Your task to perform on an android device: Search for "usb-c to usb-a" on target, select the first entry, add it to the cart, then select checkout. Image 0: 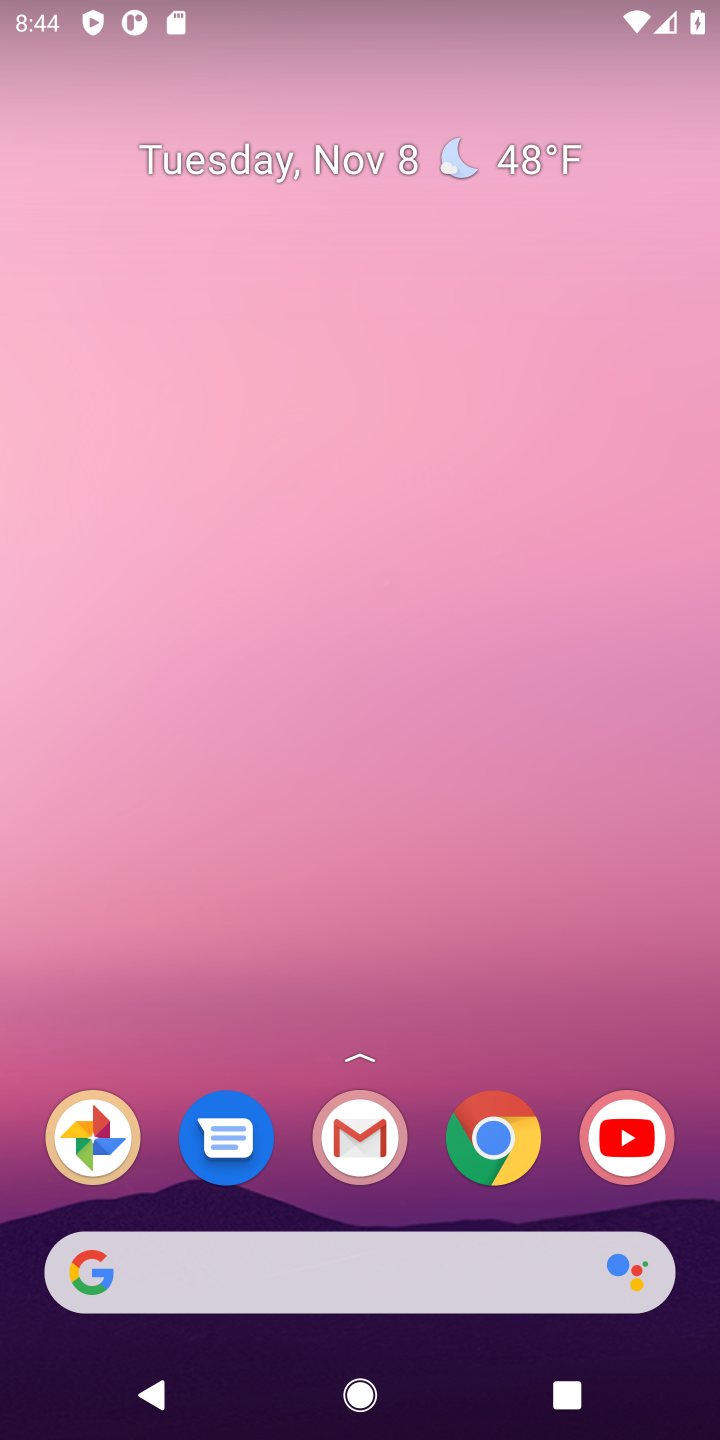
Step 0: click (492, 1152)
Your task to perform on an android device: Search for "usb-c to usb-a" on target, select the first entry, add it to the cart, then select checkout. Image 1: 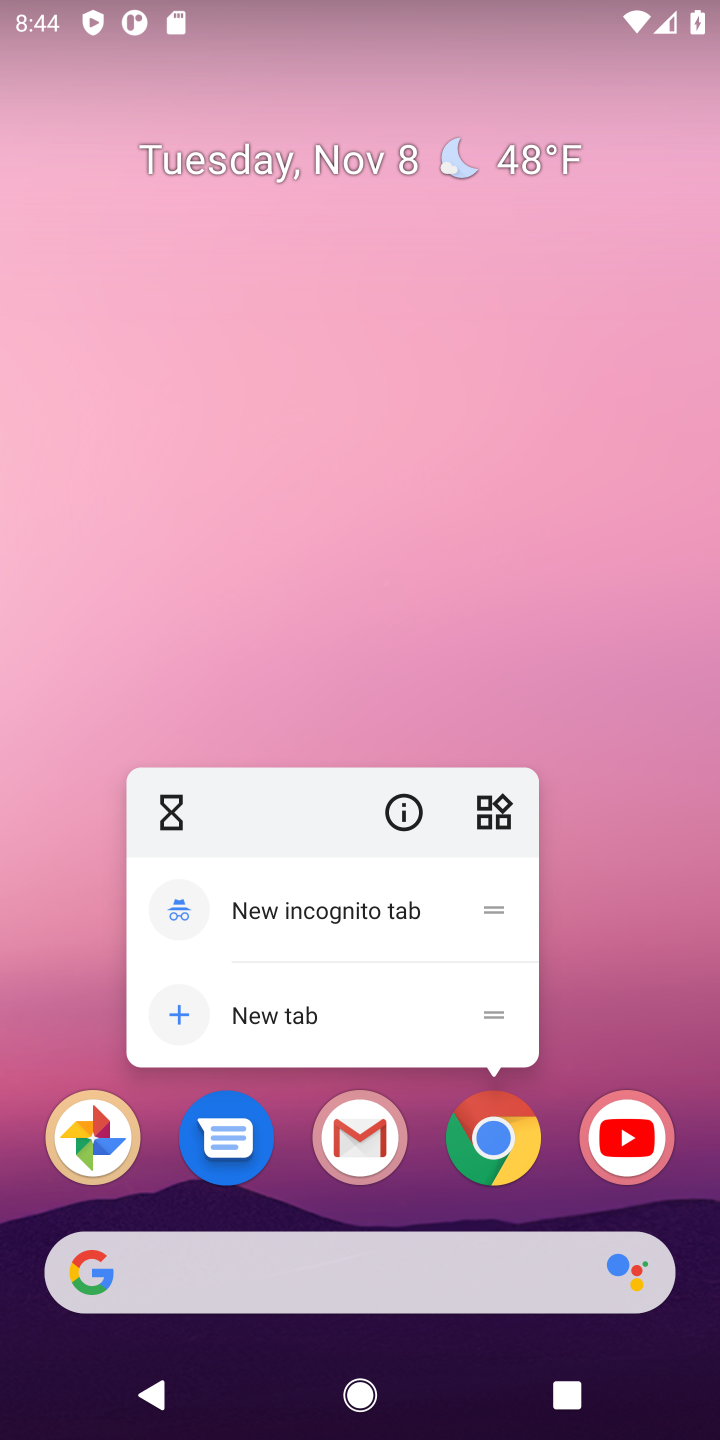
Step 1: click (497, 1138)
Your task to perform on an android device: Search for "usb-c to usb-a" on target, select the first entry, add it to the cart, then select checkout. Image 2: 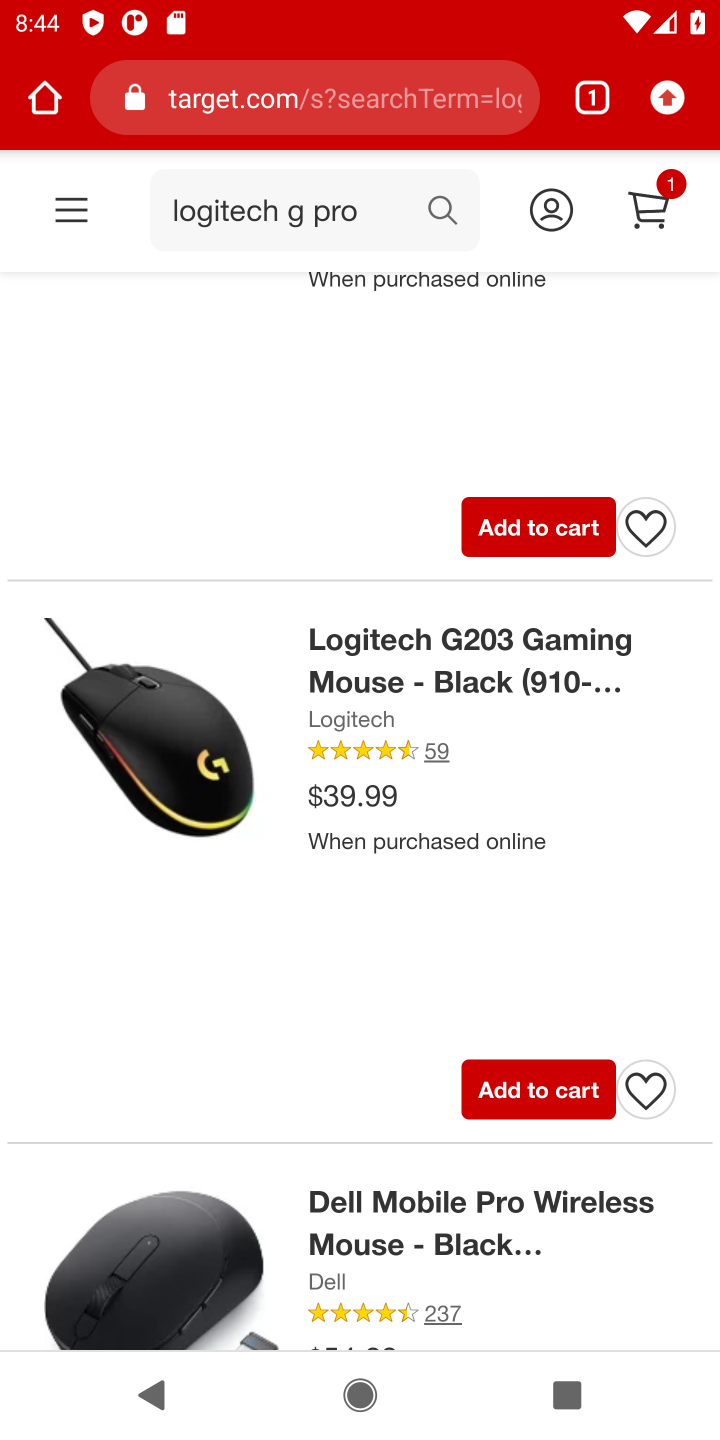
Step 2: click (432, 204)
Your task to perform on an android device: Search for "usb-c to usb-a" on target, select the first entry, add it to the cart, then select checkout. Image 3: 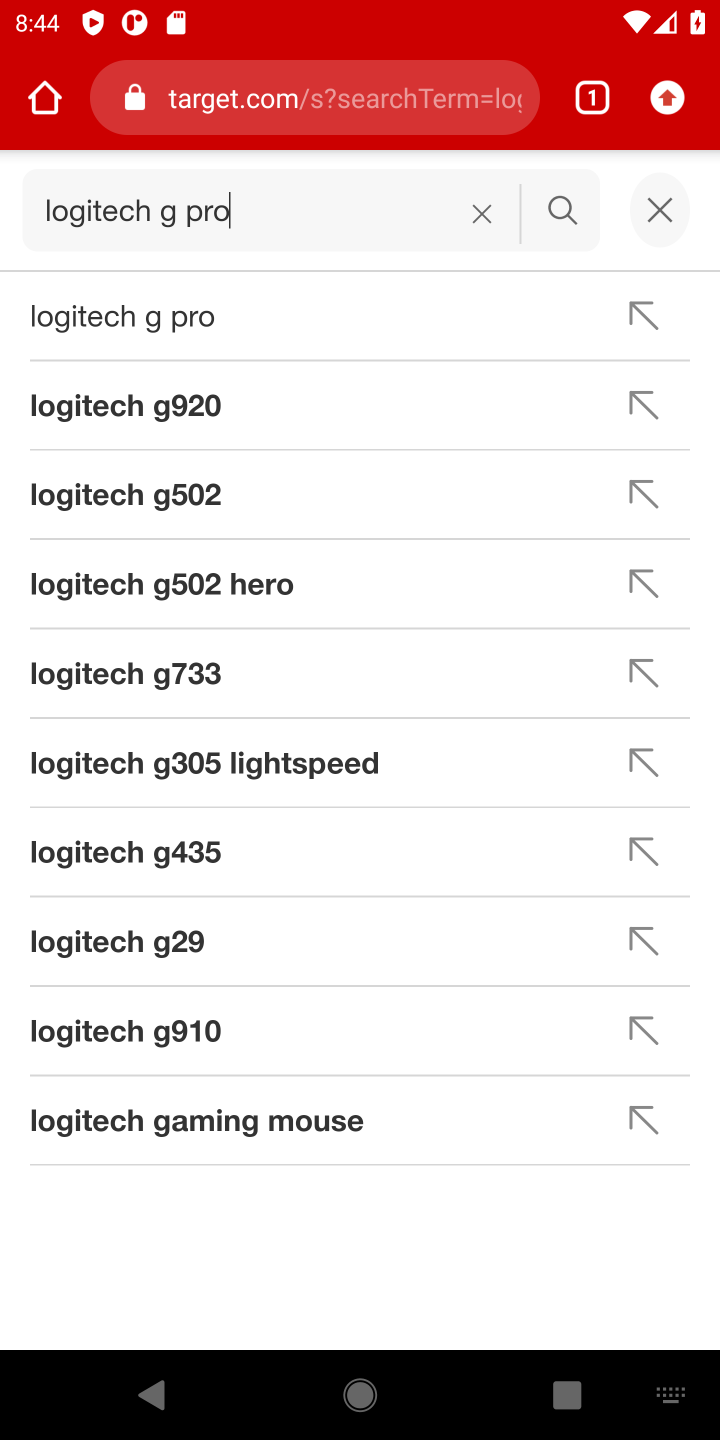
Step 3: click (465, 225)
Your task to perform on an android device: Search for "usb-c to usb-a" on target, select the first entry, add it to the cart, then select checkout. Image 4: 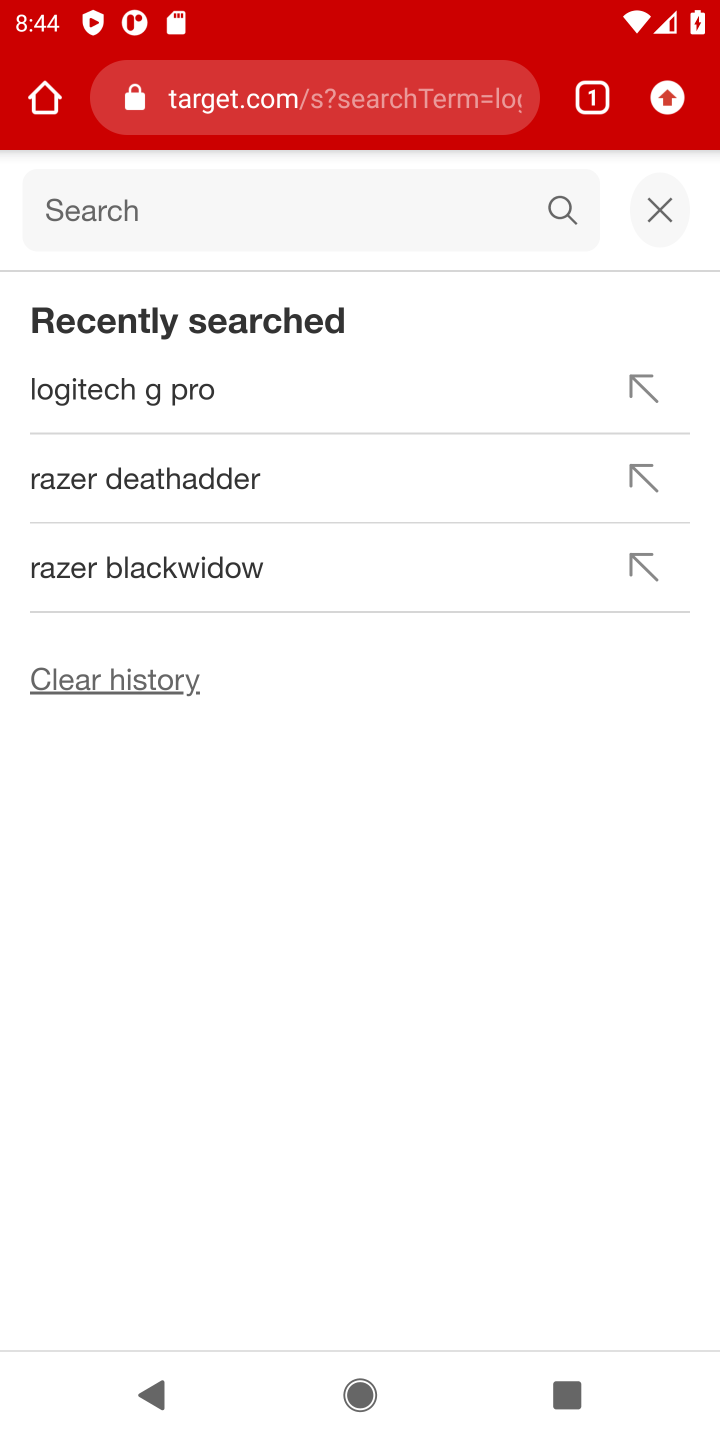
Step 4: click (465, 227)
Your task to perform on an android device: Search for "usb-c to usb-a" on target, select the first entry, add it to the cart, then select checkout. Image 5: 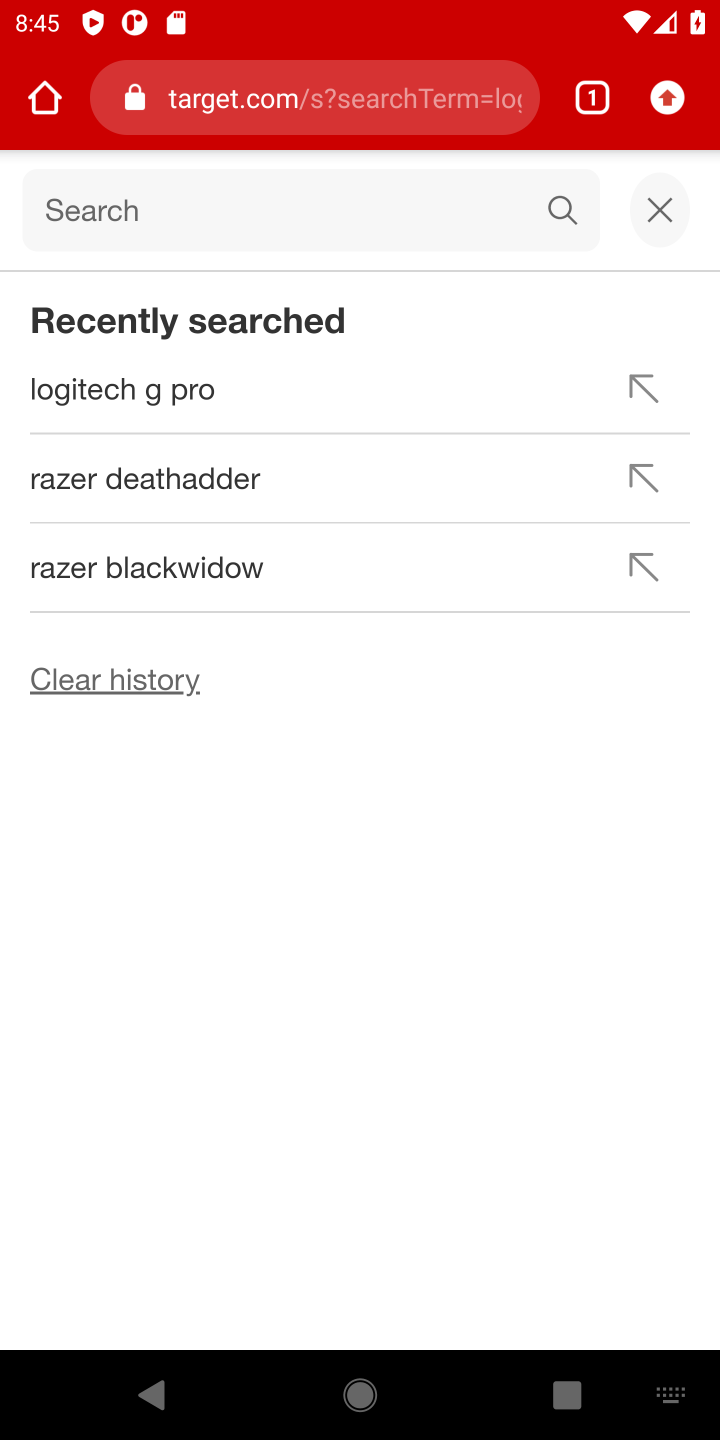
Step 5: type "usb-c to usb-a"
Your task to perform on an android device: Search for "usb-c to usb-a" on target, select the first entry, add it to the cart, then select checkout. Image 6: 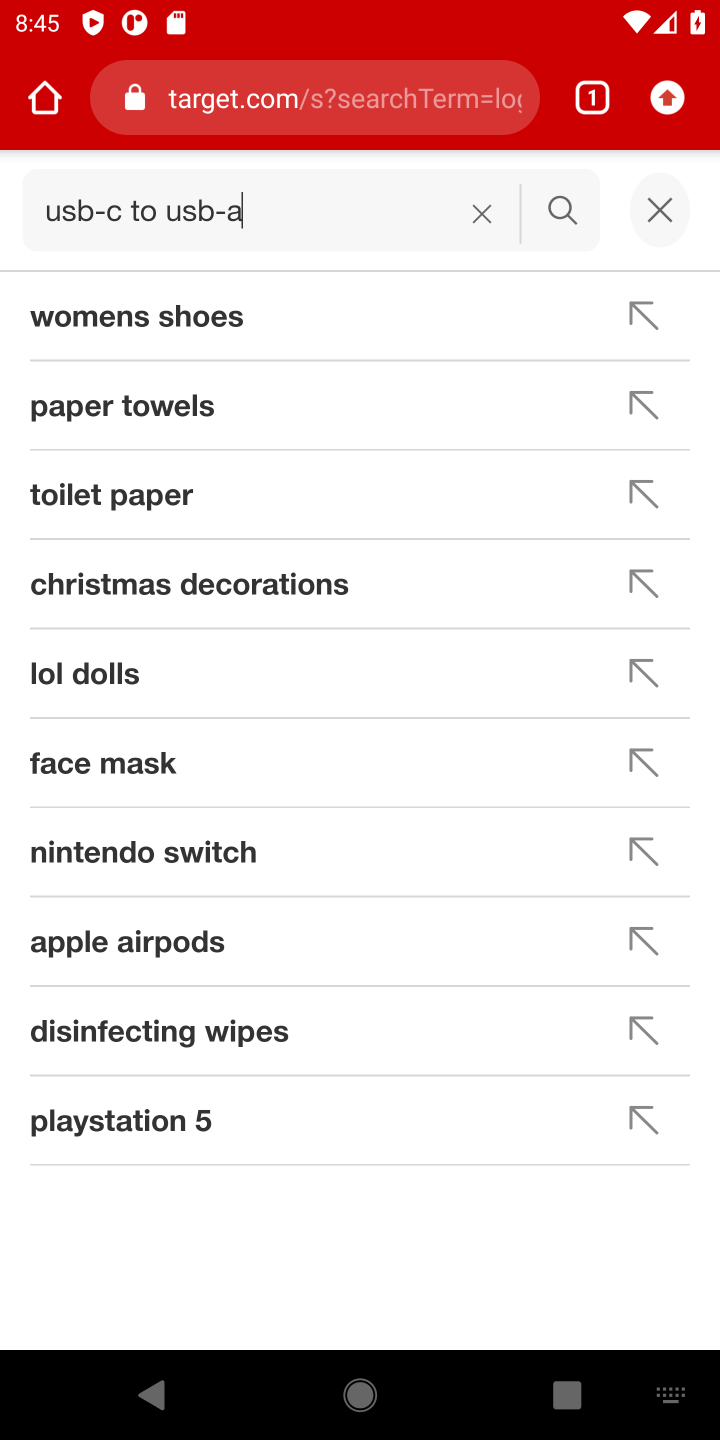
Step 6: press enter
Your task to perform on an android device: Search for "usb-c to usb-a" on target, select the first entry, add it to the cart, then select checkout. Image 7: 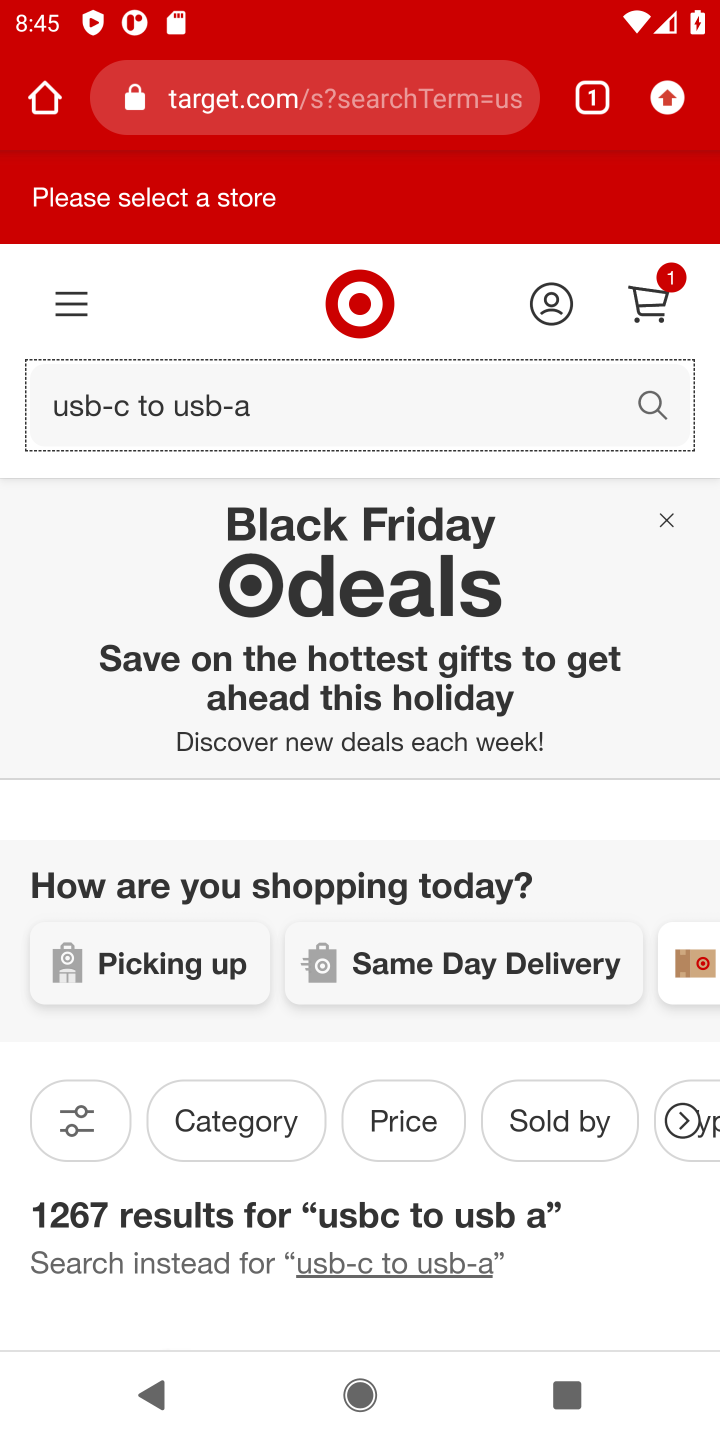
Step 7: drag from (352, 1161) to (514, 635)
Your task to perform on an android device: Search for "usb-c to usb-a" on target, select the first entry, add it to the cart, then select checkout. Image 8: 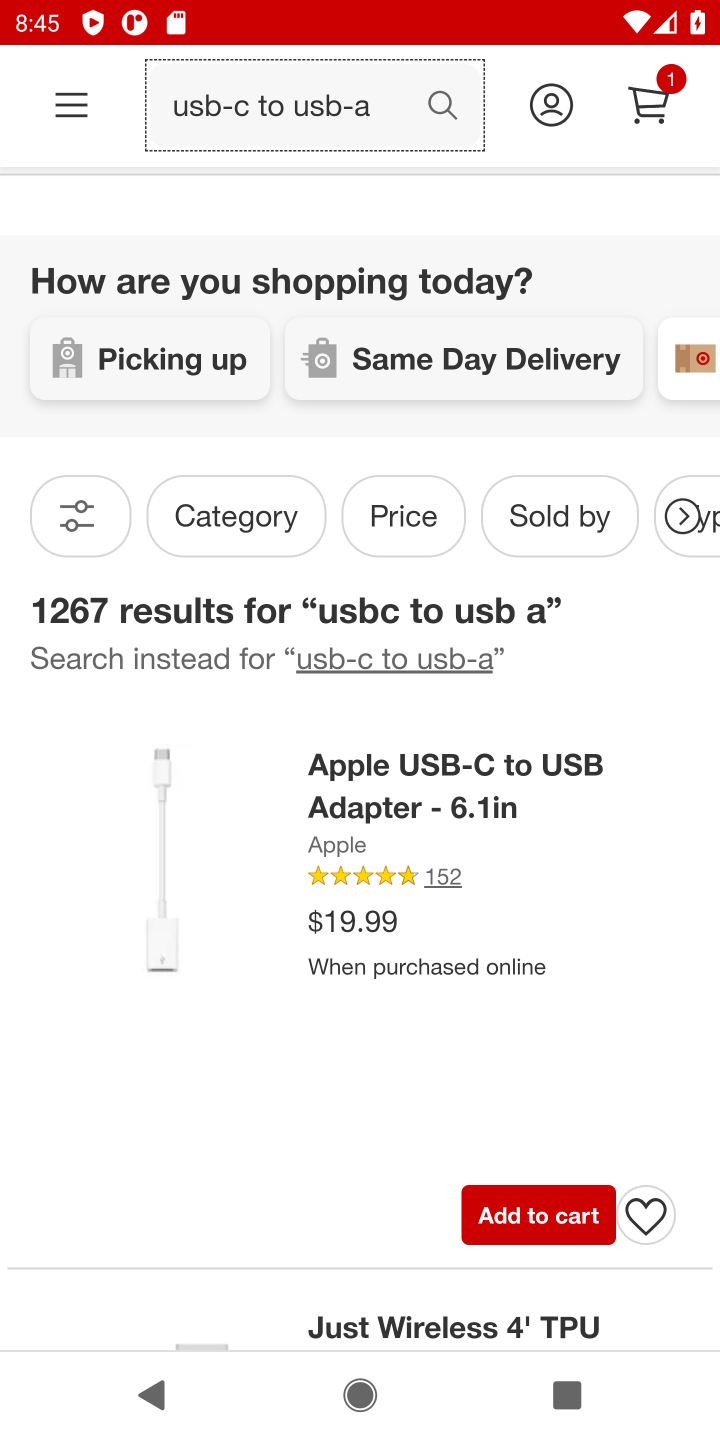
Step 8: click (541, 1219)
Your task to perform on an android device: Search for "usb-c to usb-a" on target, select the first entry, add it to the cart, then select checkout. Image 9: 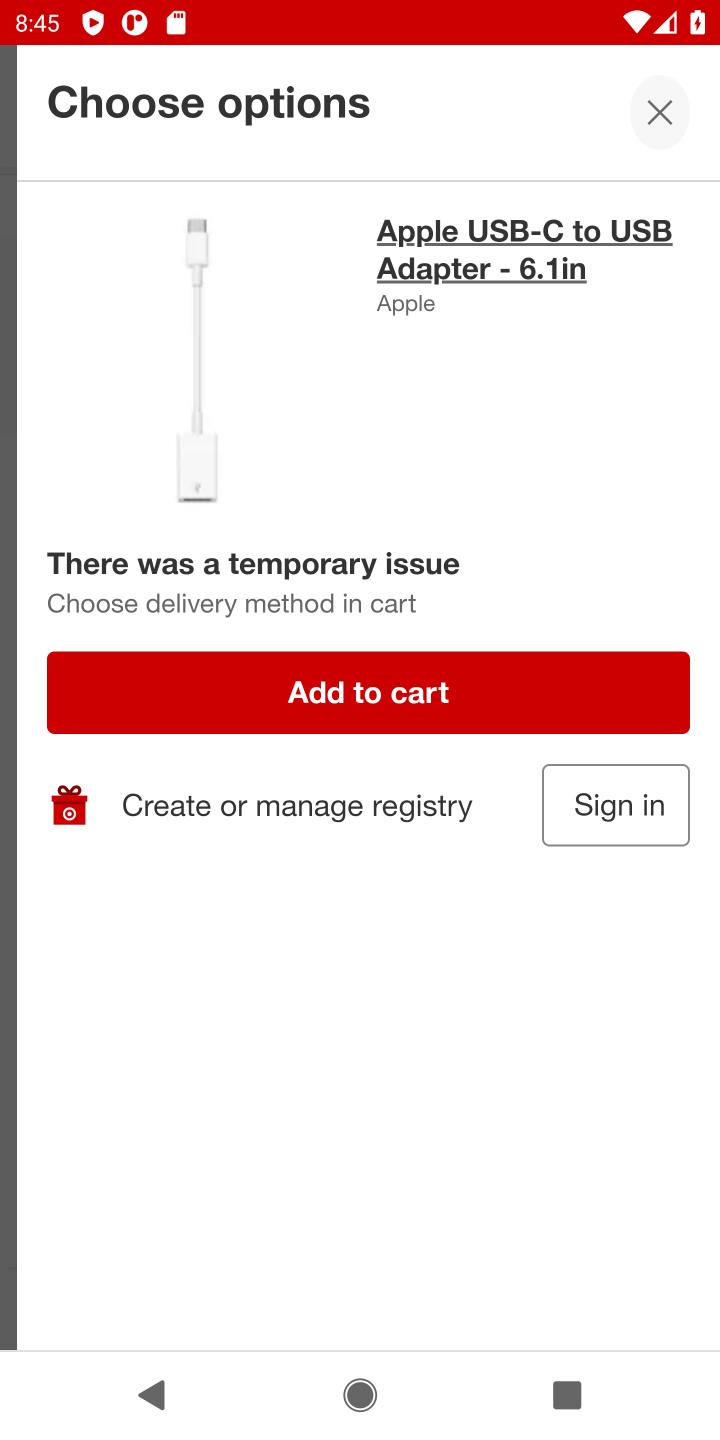
Step 9: click (443, 697)
Your task to perform on an android device: Search for "usb-c to usb-a" on target, select the first entry, add it to the cart, then select checkout. Image 10: 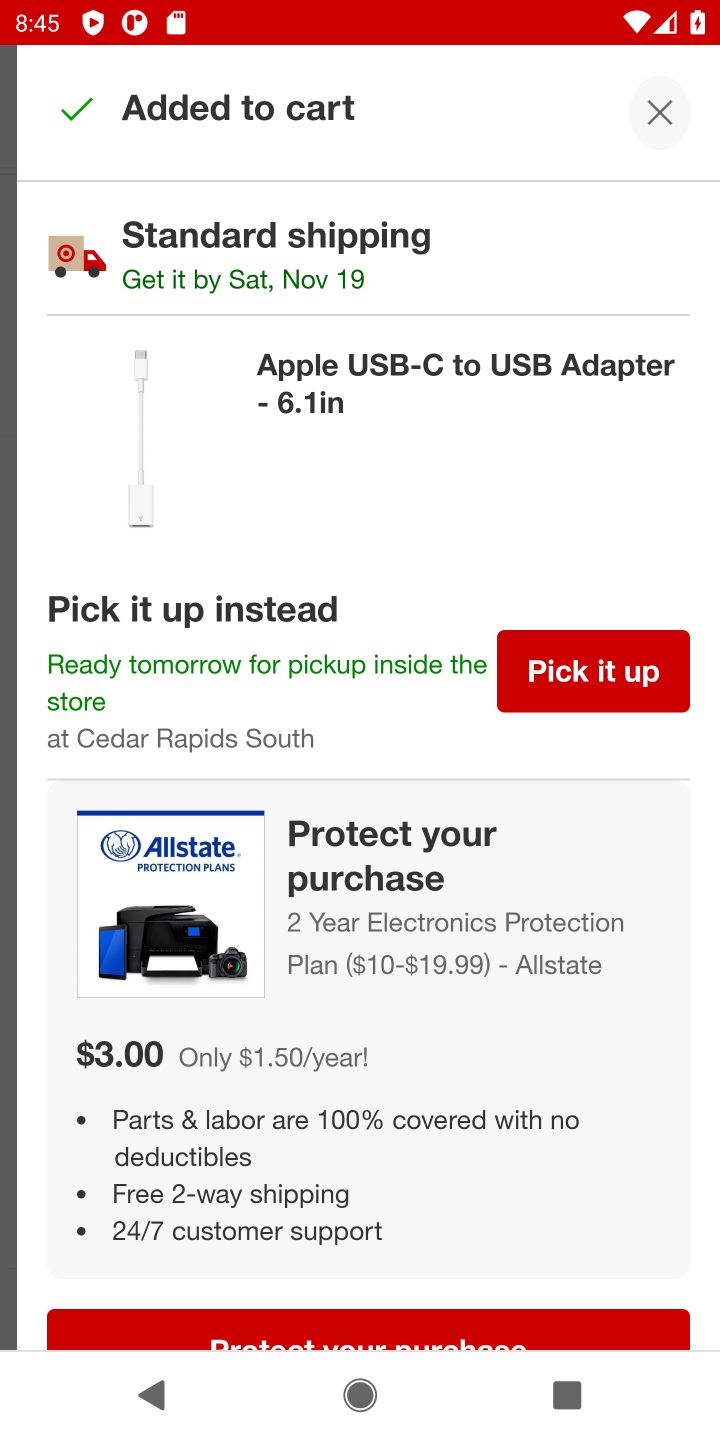
Step 10: drag from (418, 1125) to (541, 414)
Your task to perform on an android device: Search for "usb-c to usb-a" on target, select the first entry, add it to the cart, then select checkout. Image 11: 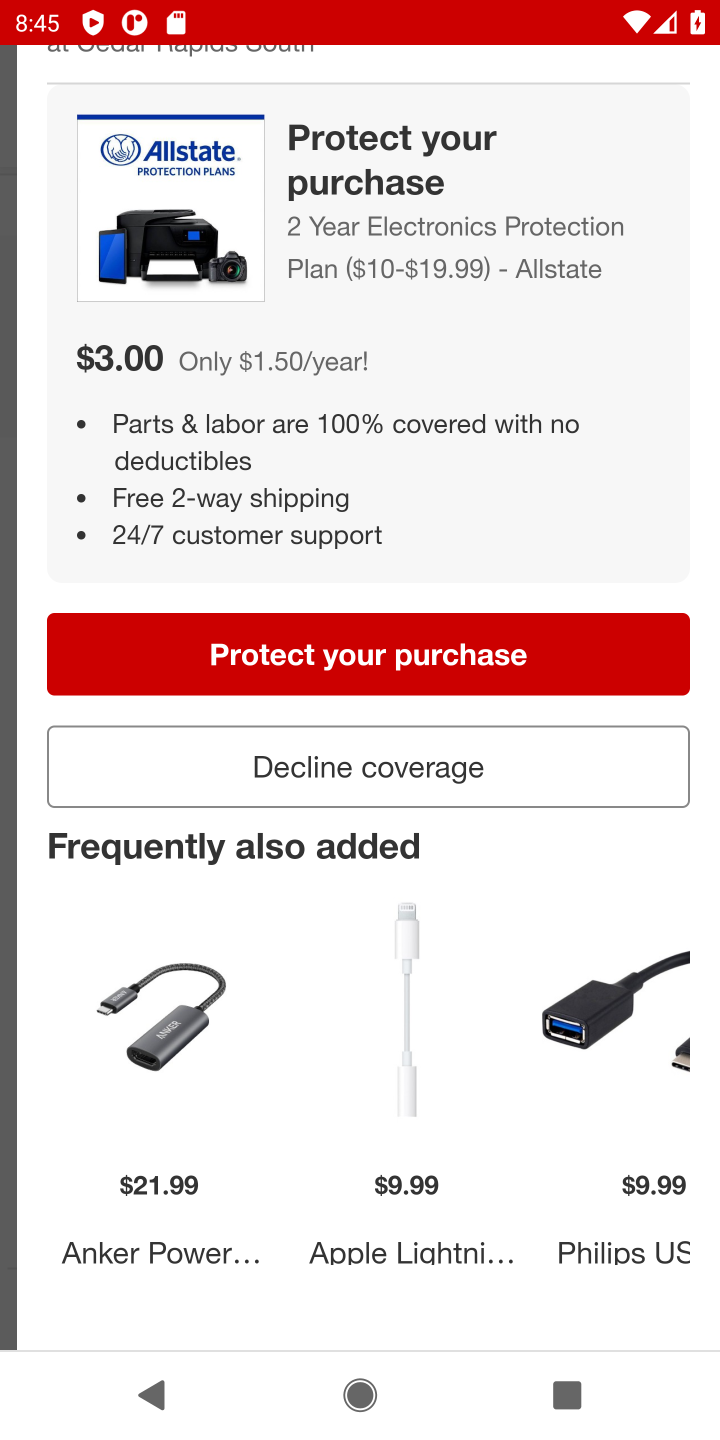
Step 11: click (410, 780)
Your task to perform on an android device: Search for "usb-c to usb-a" on target, select the first entry, add it to the cart, then select checkout. Image 12: 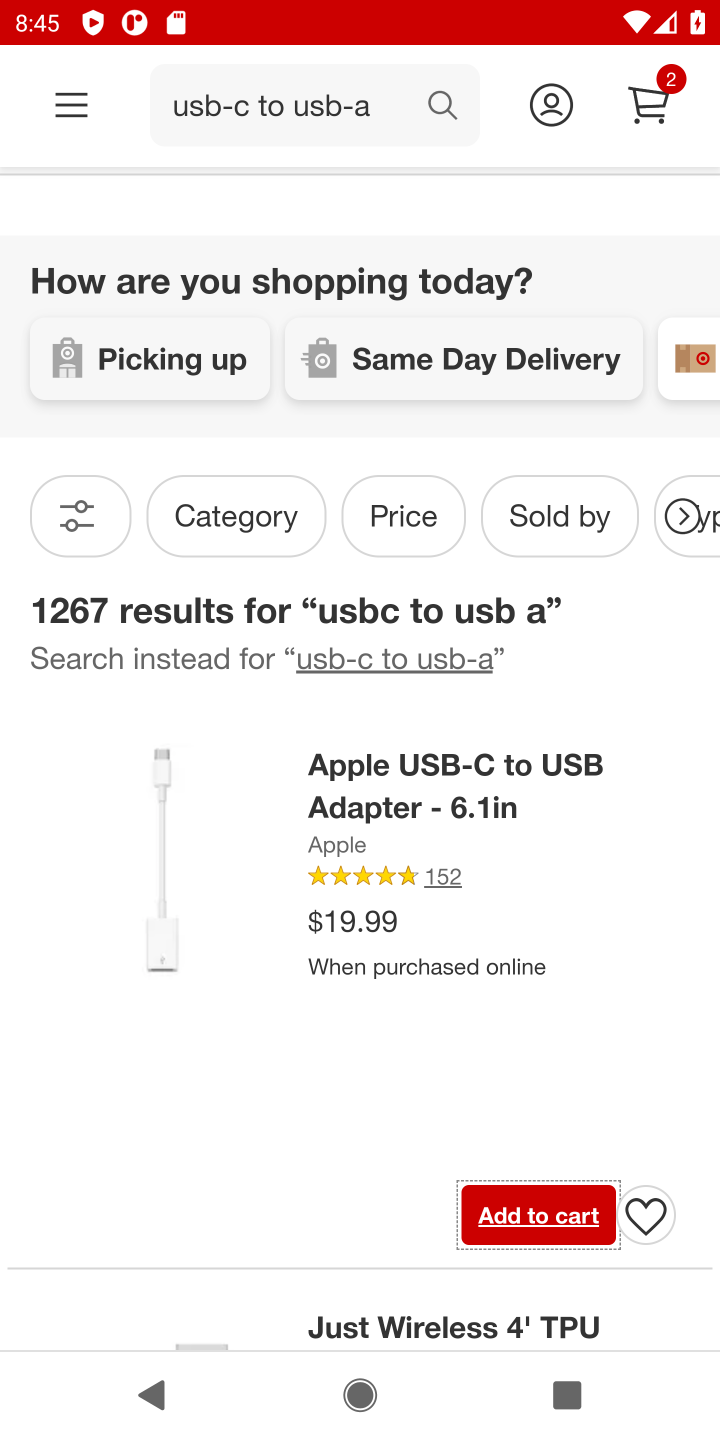
Step 12: click (655, 85)
Your task to perform on an android device: Search for "usb-c to usb-a" on target, select the first entry, add it to the cart, then select checkout. Image 13: 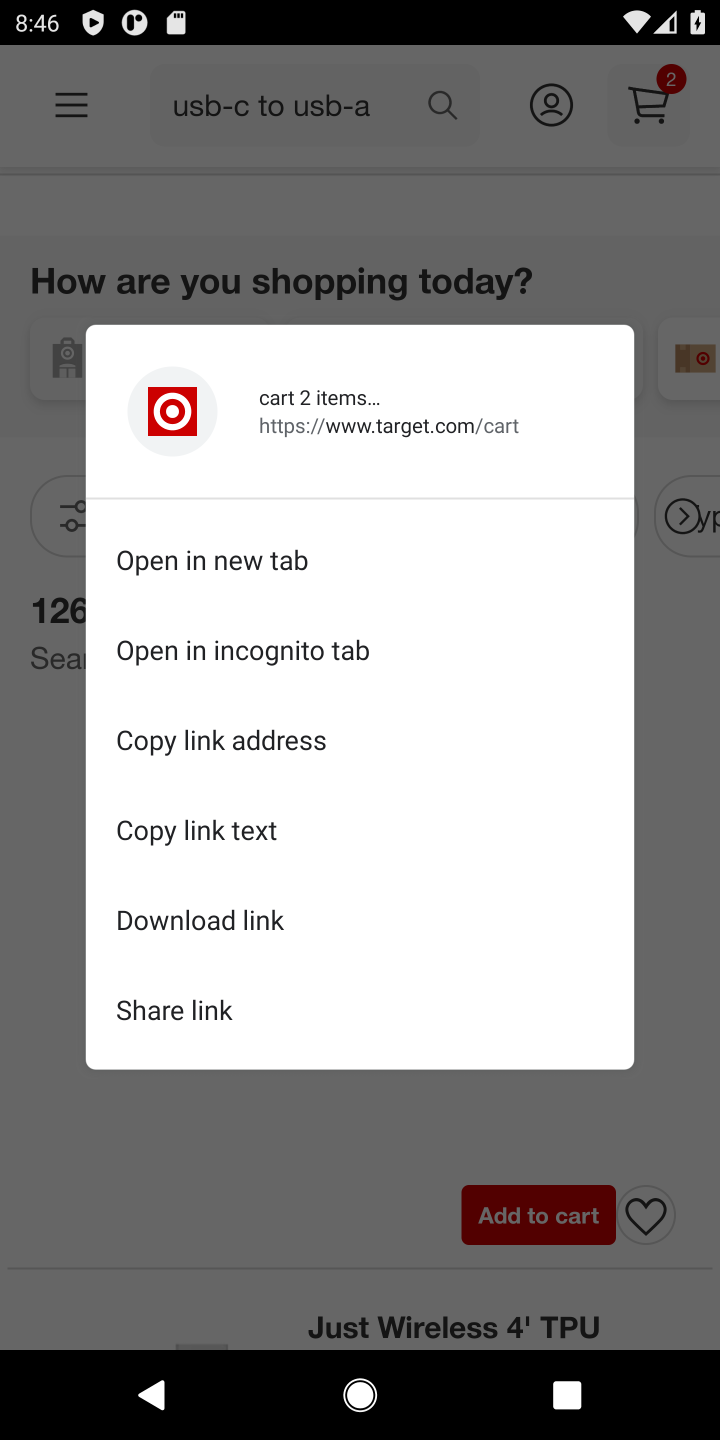
Step 13: click (651, 89)
Your task to perform on an android device: Search for "usb-c to usb-a" on target, select the first entry, add it to the cart, then select checkout. Image 14: 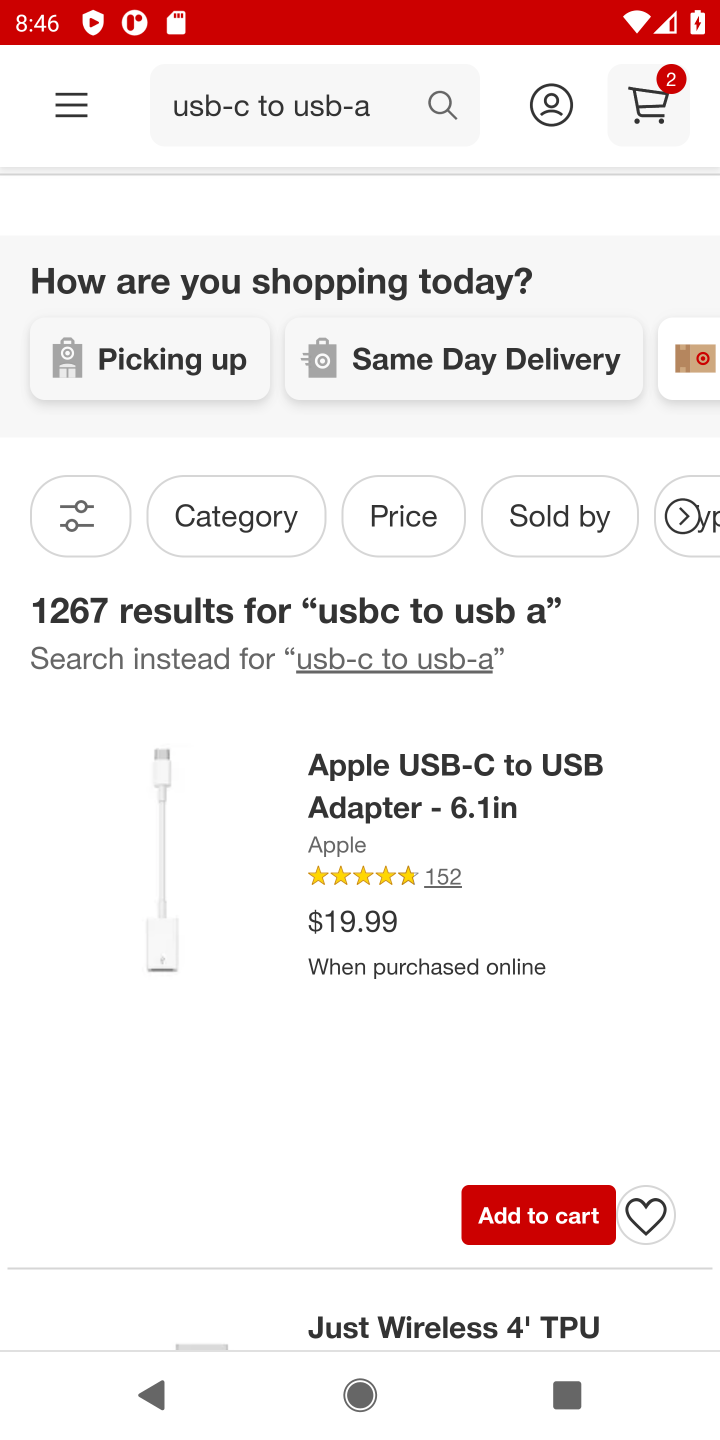
Step 14: click (664, 83)
Your task to perform on an android device: Search for "usb-c to usb-a" on target, select the first entry, add it to the cart, then select checkout. Image 15: 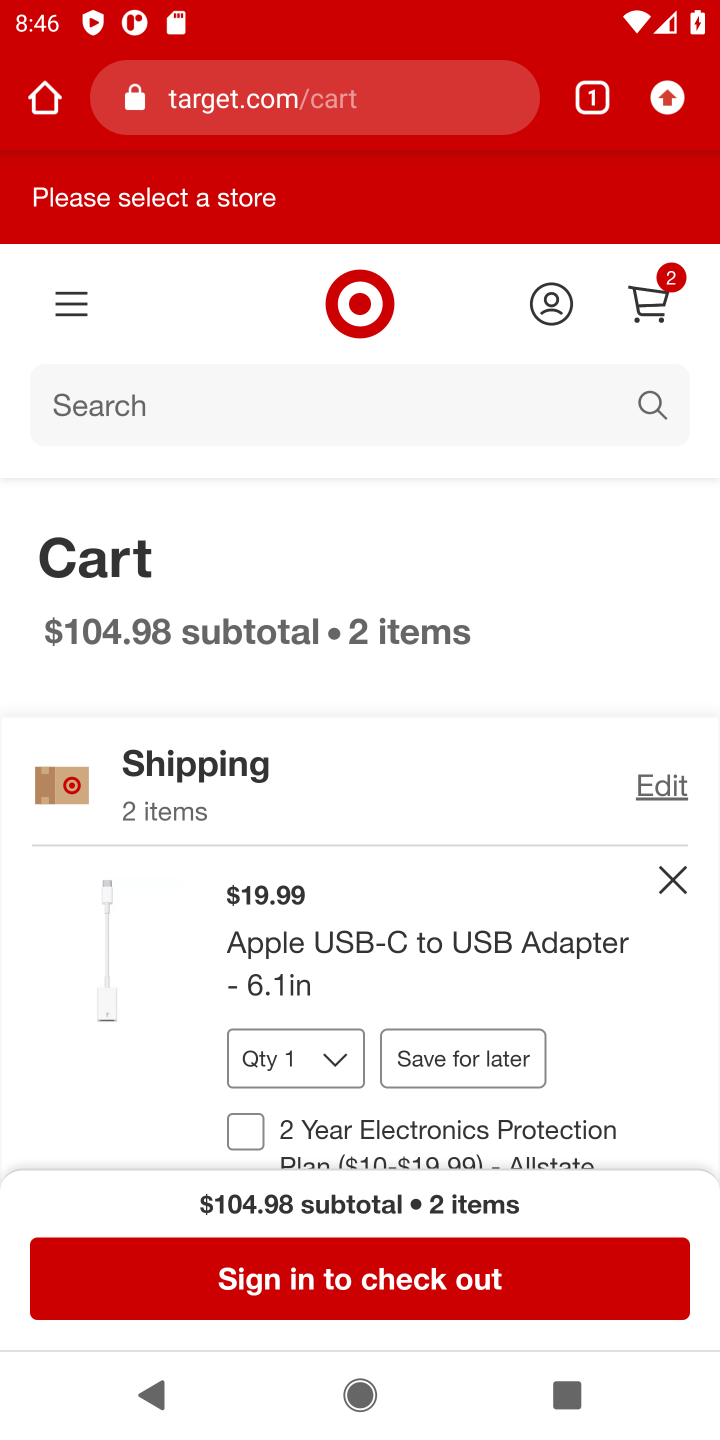
Step 15: drag from (155, 1175) to (319, 602)
Your task to perform on an android device: Search for "usb-c to usb-a" on target, select the first entry, add it to the cart, then select checkout. Image 16: 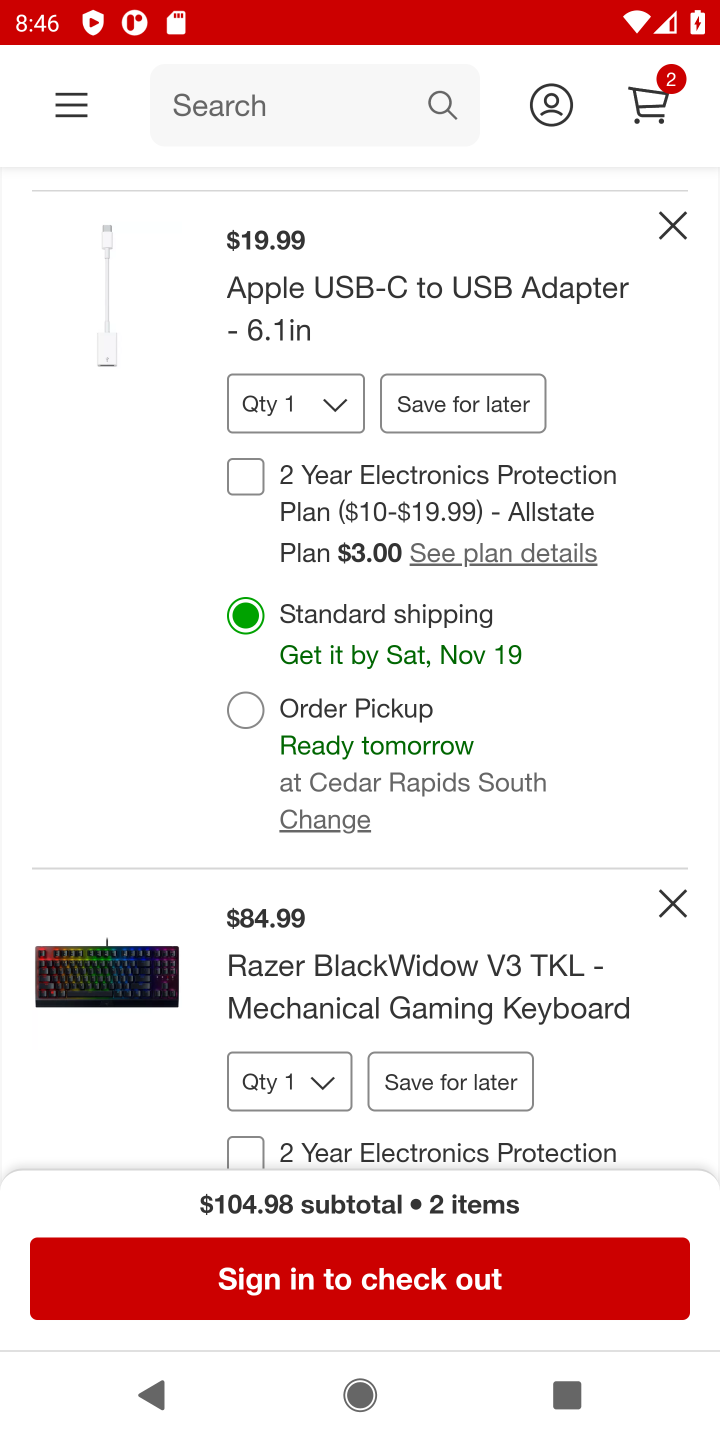
Step 16: drag from (175, 1079) to (410, 440)
Your task to perform on an android device: Search for "usb-c to usb-a" on target, select the first entry, add it to the cart, then select checkout. Image 17: 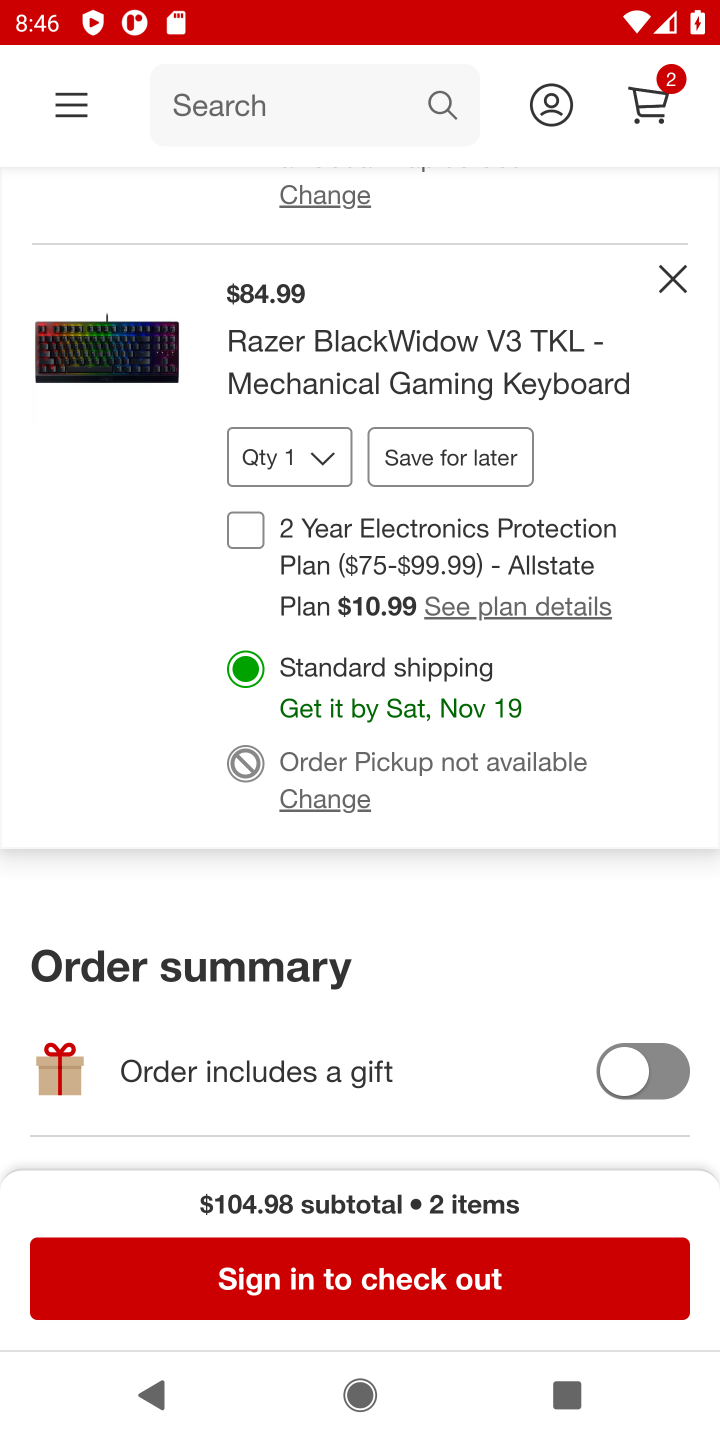
Step 17: click (679, 279)
Your task to perform on an android device: Search for "usb-c to usb-a" on target, select the first entry, add it to the cart, then select checkout. Image 18: 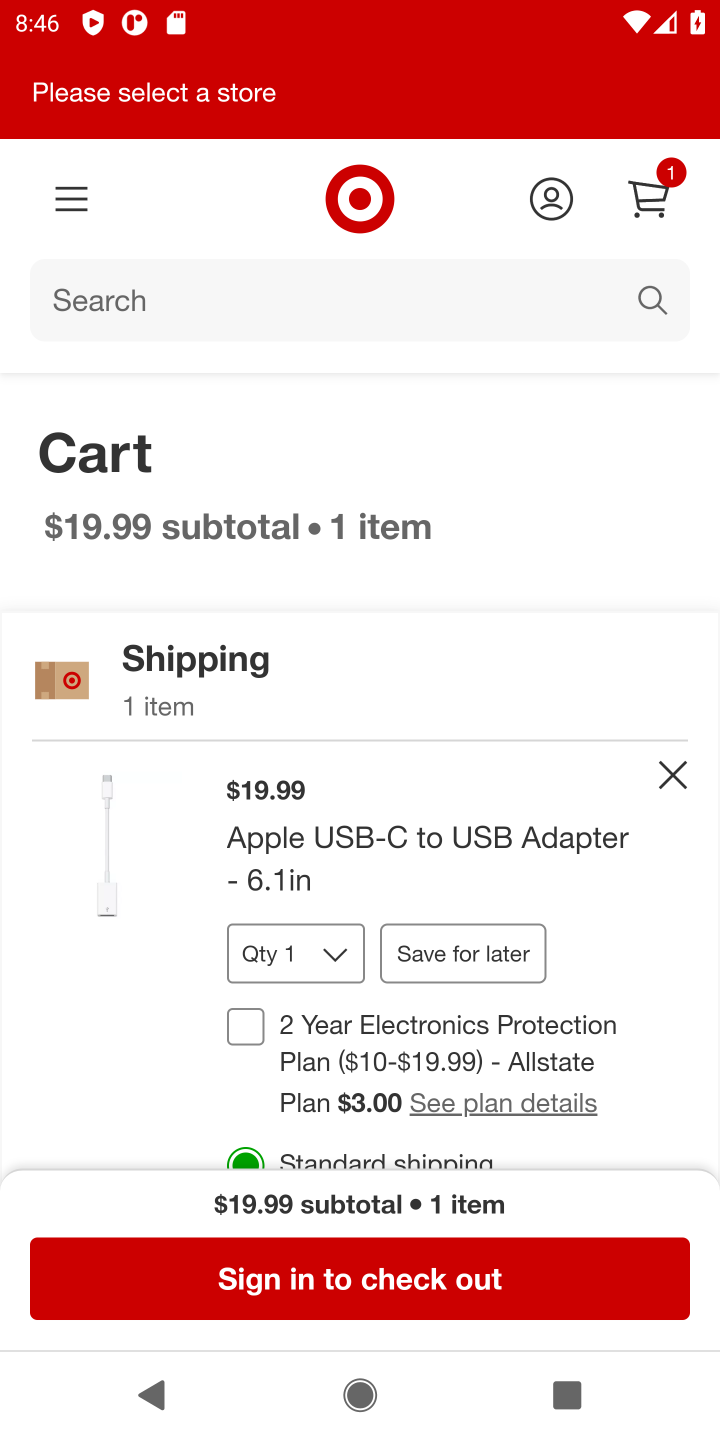
Step 18: click (405, 1281)
Your task to perform on an android device: Search for "usb-c to usb-a" on target, select the first entry, add it to the cart, then select checkout. Image 19: 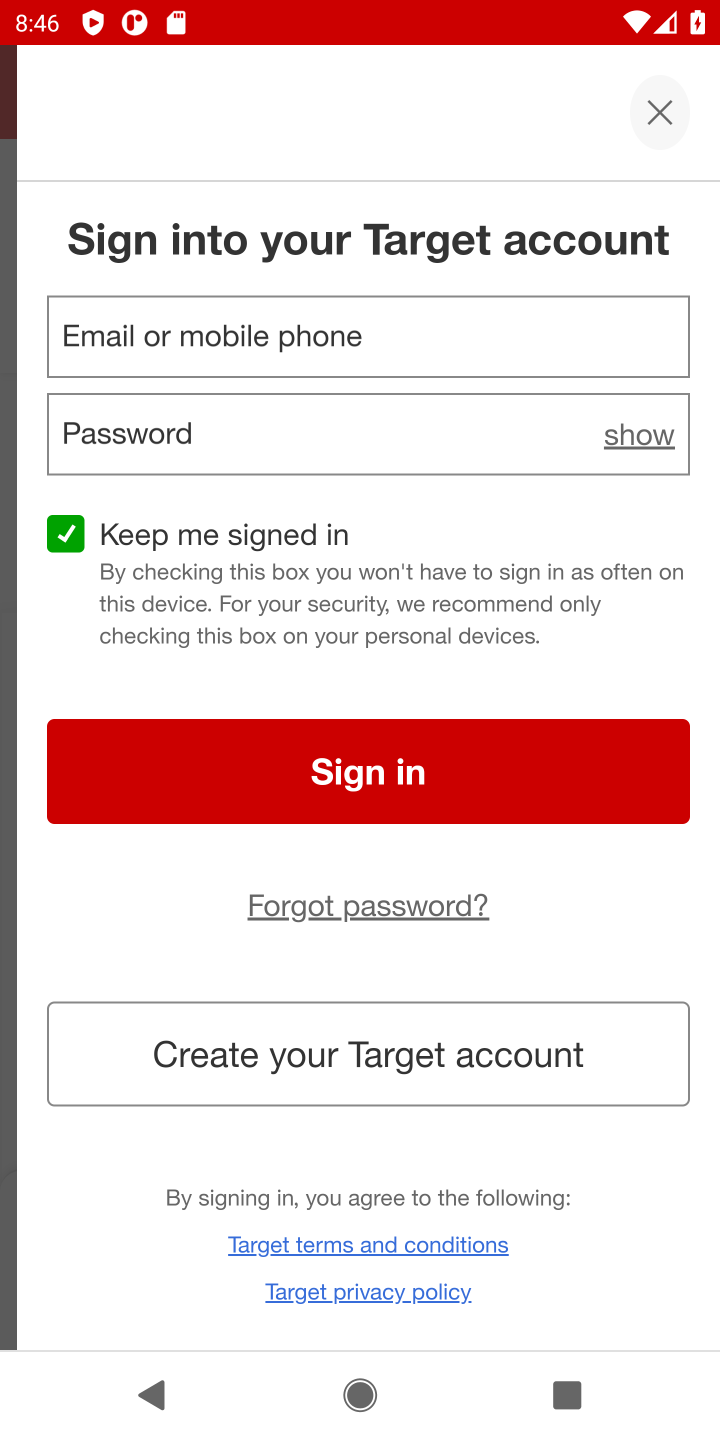
Step 19: task complete